Your task to perform on an android device: Is it going to rain tomorrow? Image 0: 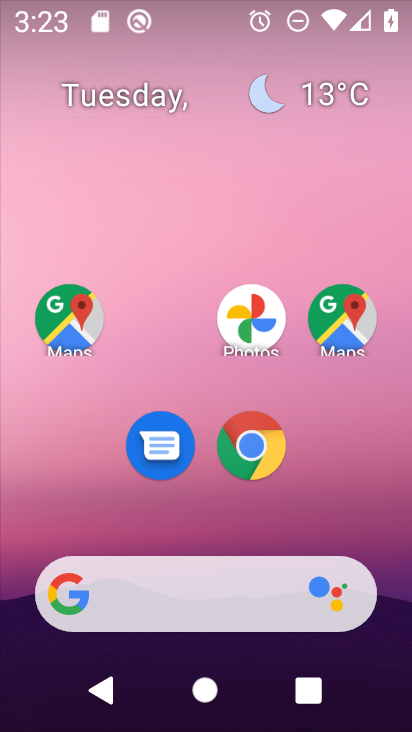
Step 0: click (255, 607)
Your task to perform on an android device: Is it going to rain tomorrow? Image 1: 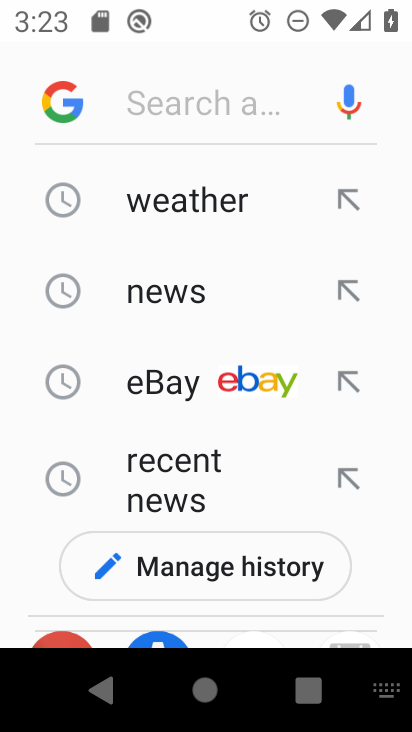
Step 1: click (208, 197)
Your task to perform on an android device: Is it going to rain tomorrow? Image 2: 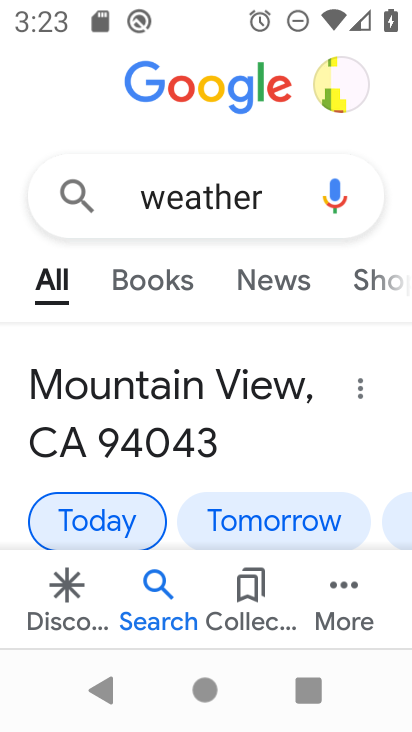
Step 2: click (307, 523)
Your task to perform on an android device: Is it going to rain tomorrow? Image 3: 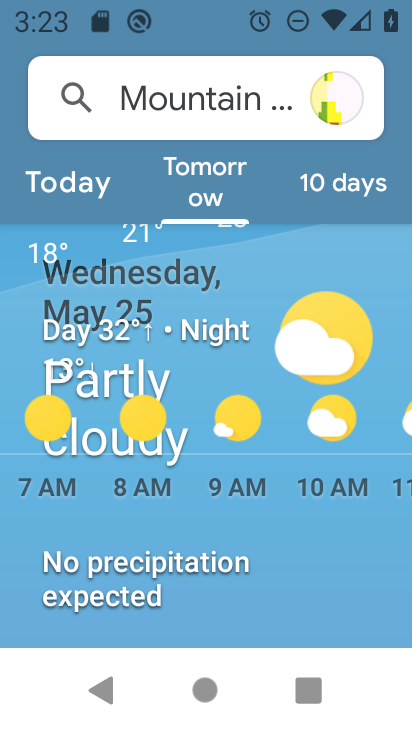
Step 3: task complete